Your task to perform on an android device: turn notification dots off Image 0: 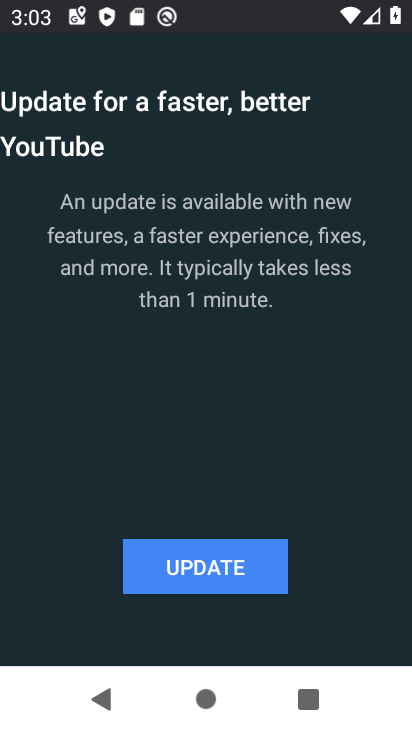
Step 0: press home button
Your task to perform on an android device: turn notification dots off Image 1: 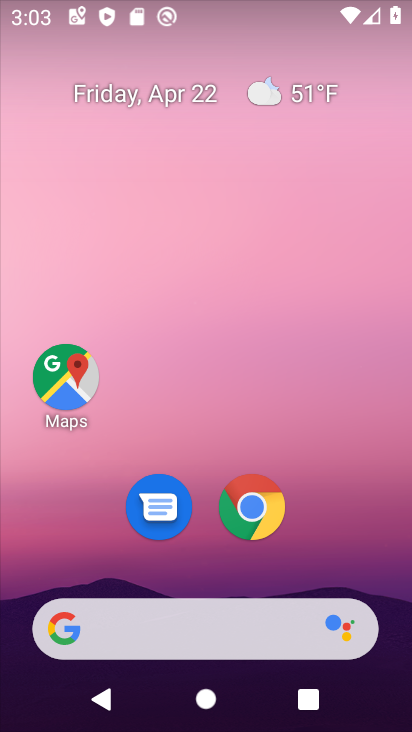
Step 1: drag from (217, 416) to (320, 2)
Your task to perform on an android device: turn notification dots off Image 2: 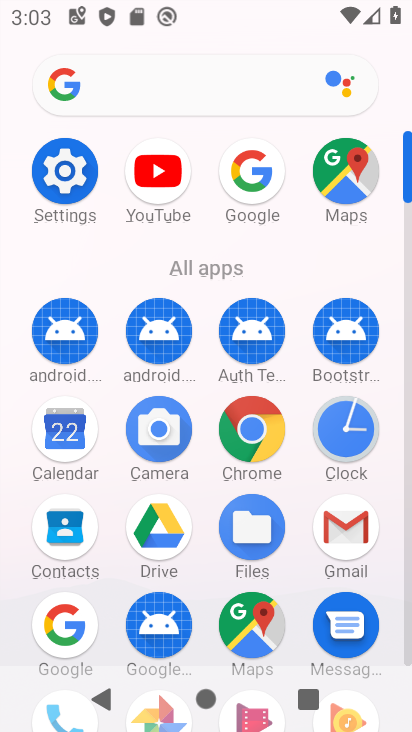
Step 2: click (55, 172)
Your task to perform on an android device: turn notification dots off Image 3: 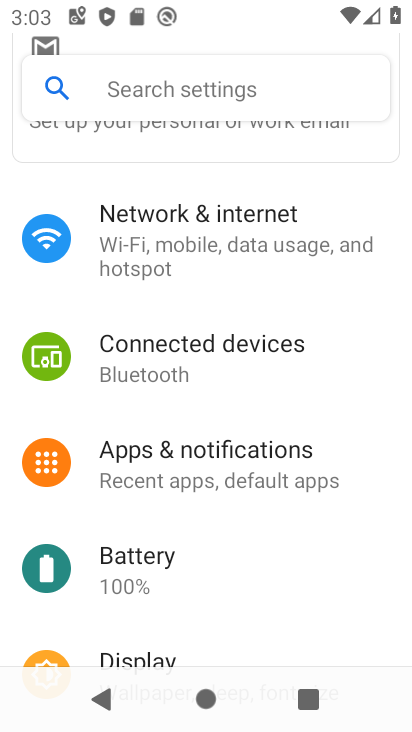
Step 3: click (210, 461)
Your task to perform on an android device: turn notification dots off Image 4: 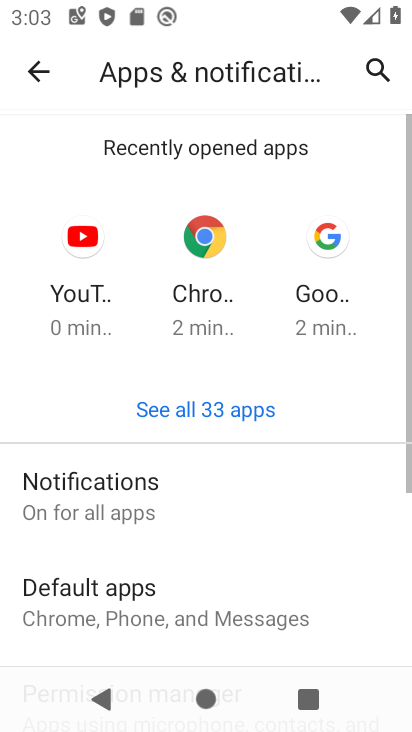
Step 4: click (160, 511)
Your task to perform on an android device: turn notification dots off Image 5: 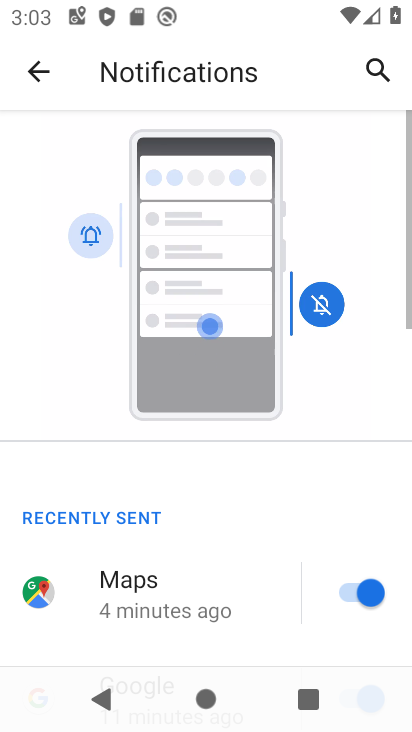
Step 5: drag from (225, 587) to (303, 65)
Your task to perform on an android device: turn notification dots off Image 6: 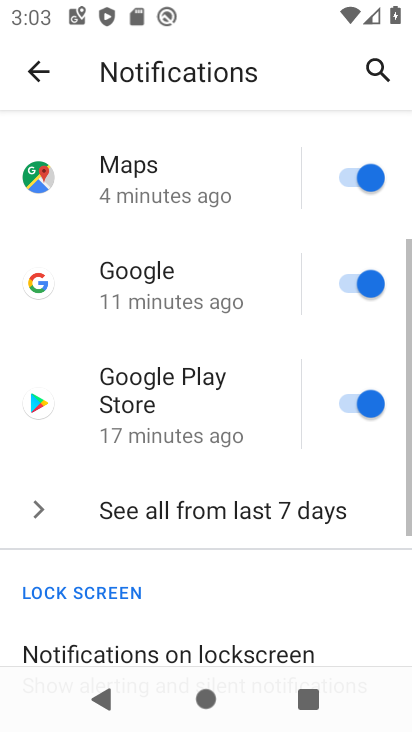
Step 6: drag from (207, 578) to (324, 106)
Your task to perform on an android device: turn notification dots off Image 7: 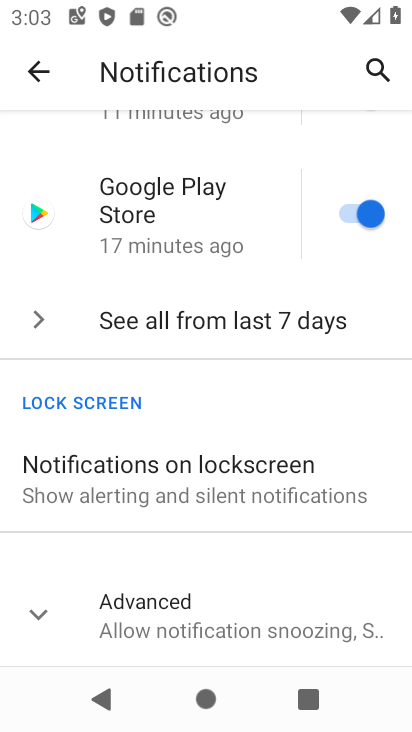
Step 7: click (181, 612)
Your task to perform on an android device: turn notification dots off Image 8: 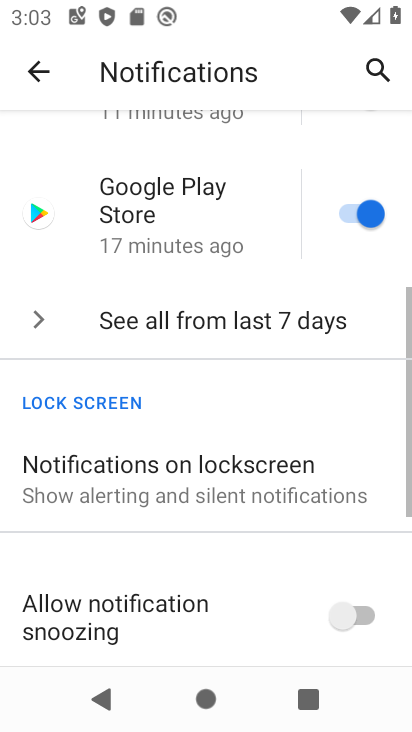
Step 8: drag from (216, 628) to (225, 61)
Your task to perform on an android device: turn notification dots off Image 9: 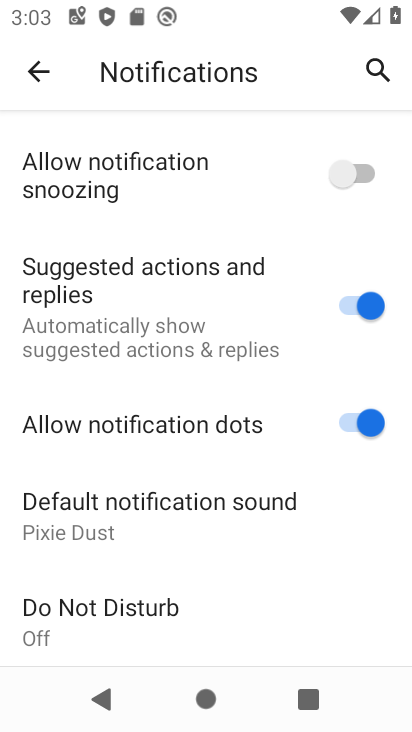
Step 9: click (370, 421)
Your task to perform on an android device: turn notification dots off Image 10: 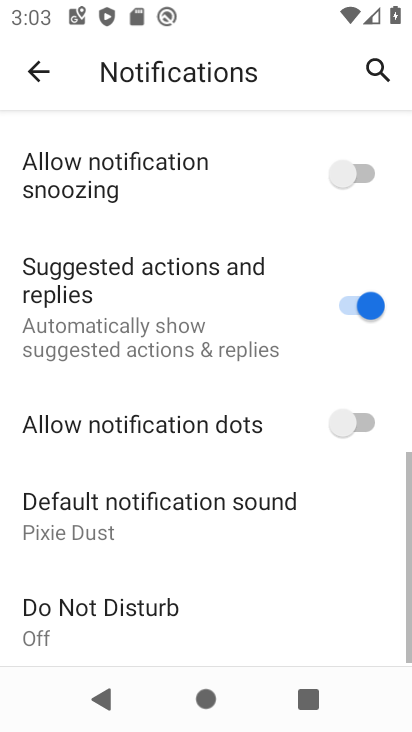
Step 10: task complete